Your task to perform on an android device: Search for vegetarian restaurants on Maps Image 0: 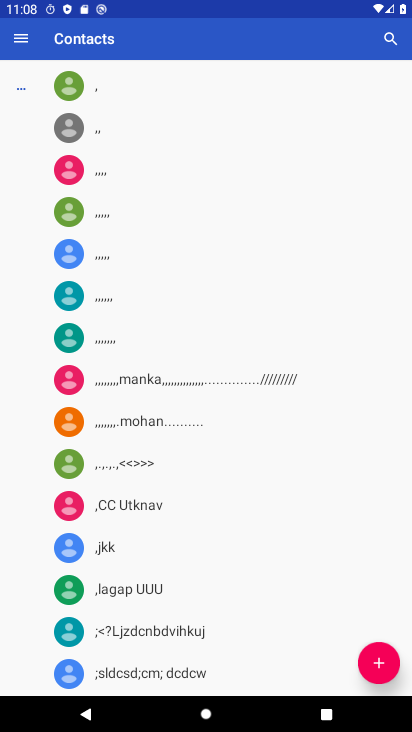
Step 0: press home button
Your task to perform on an android device: Search for vegetarian restaurants on Maps Image 1: 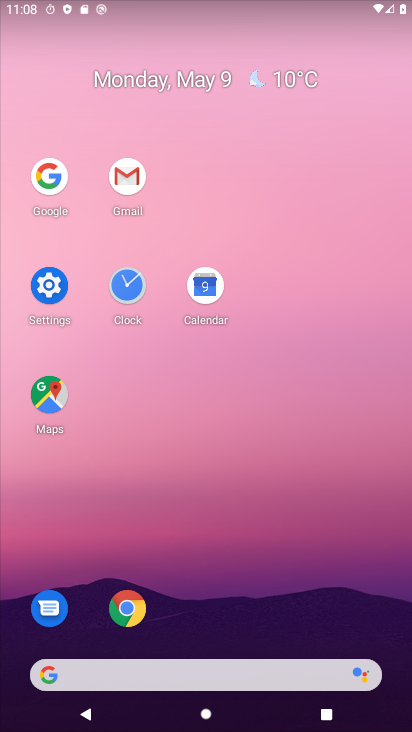
Step 1: click (59, 417)
Your task to perform on an android device: Search for vegetarian restaurants on Maps Image 2: 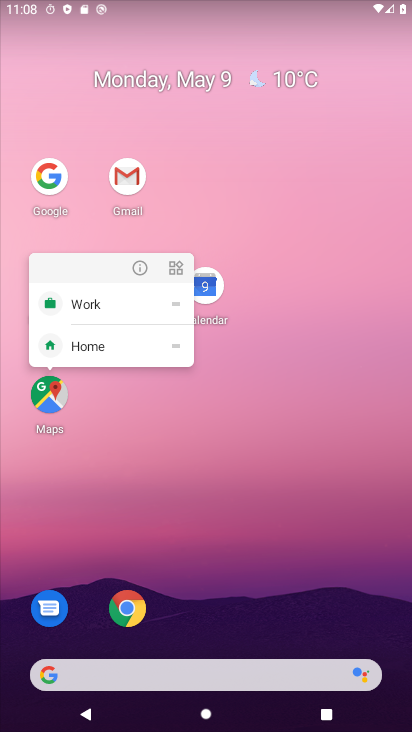
Step 2: click (42, 398)
Your task to perform on an android device: Search for vegetarian restaurants on Maps Image 3: 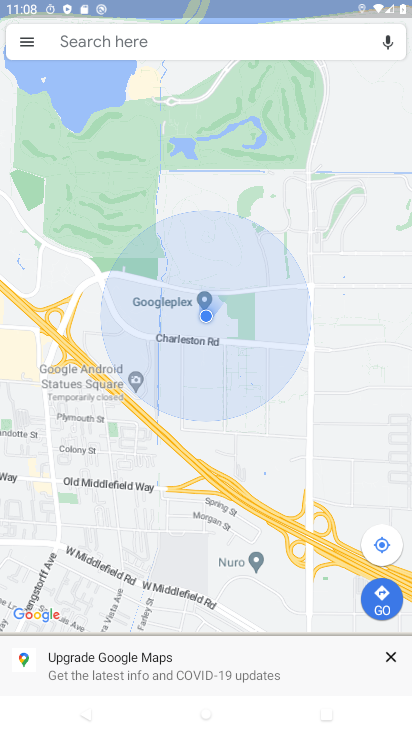
Step 3: click (222, 43)
Your task to perform on an android device: Search for vegetarian restaurants on Maps Image 4: 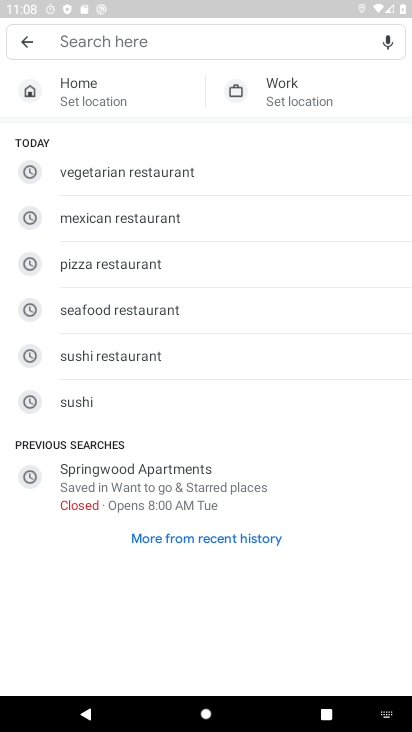
Step 4: click (197, 169)
Your task to perform on an android device: Search for vegetarian restaurants on Maps Image 5: 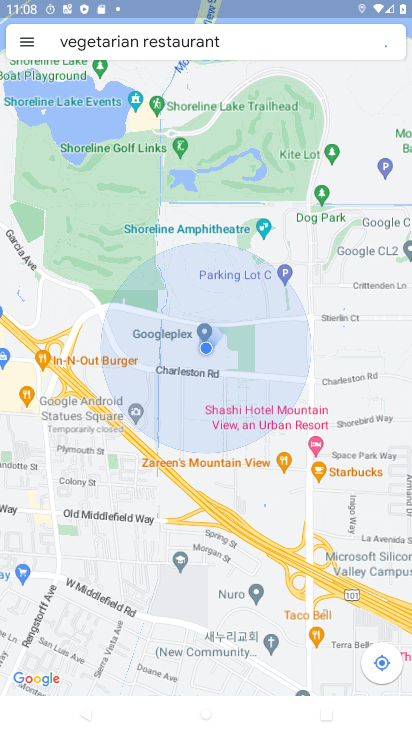
Step 5: task complete